Your task to perform on an android device: Go to sound settings Image 0: 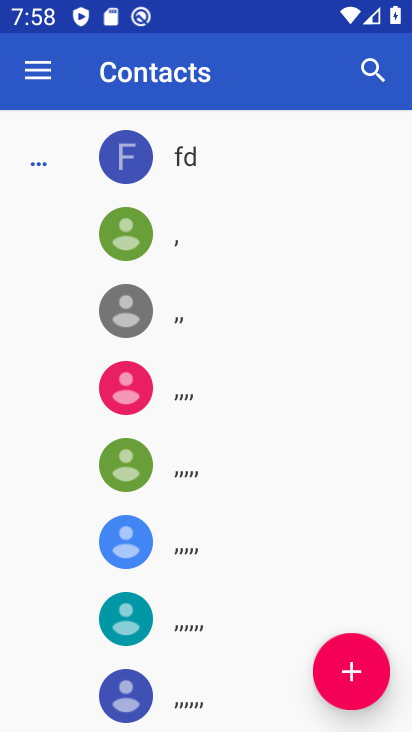
Step 0: press home button
Your task to perform on an android device: Go to sound settings Image 1: 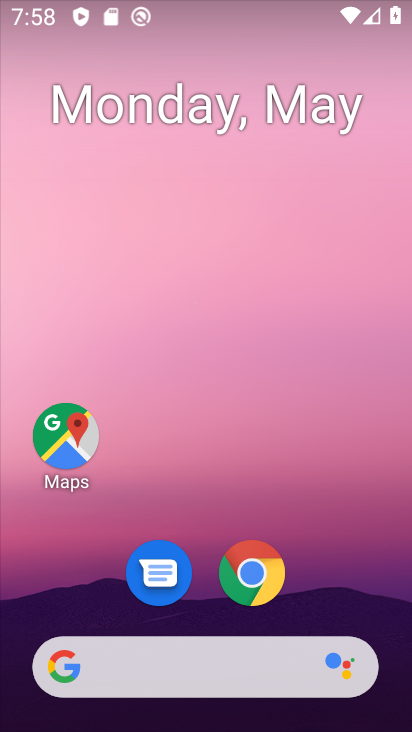
Step 1: drag from (328, 548) to (351, 331)
Your task to perform on an android device: Go to sound settings Image 2: 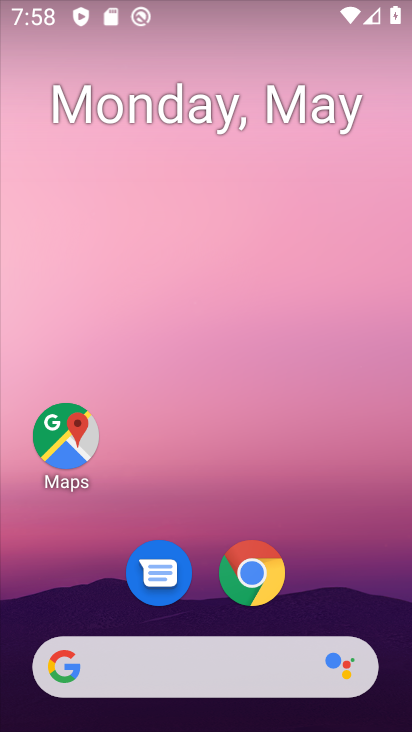
Step 2: drag from (332, 589) to (346, 0)
Your task to perform on an android device: Go to sound settings Image 3: 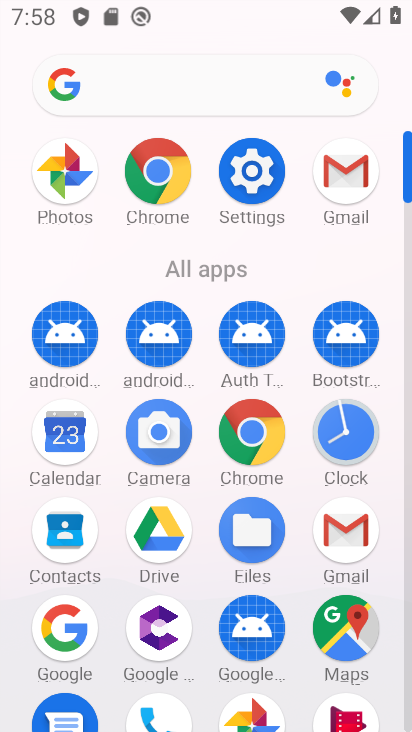
Step 3: click (244, 191)
Your task to perform on an android device: Go to sound settings Image 4: 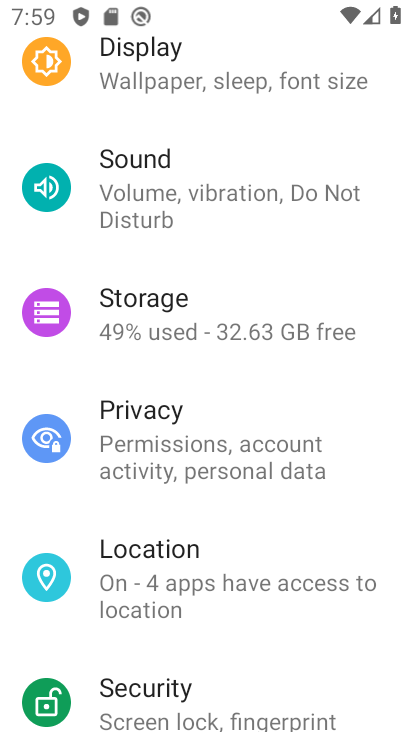
Step 4: click (213, 215)
Your task to perform on an android device: Go to sound settings Image 5: 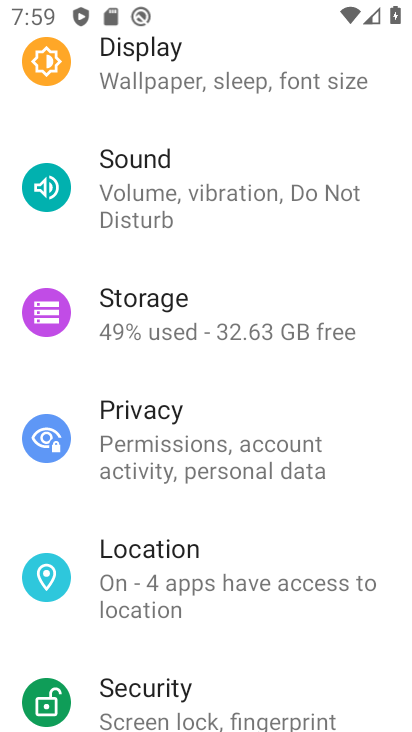
Step 5: task complete